Your task to perform on an android device: Open Google Chrome Image 0: 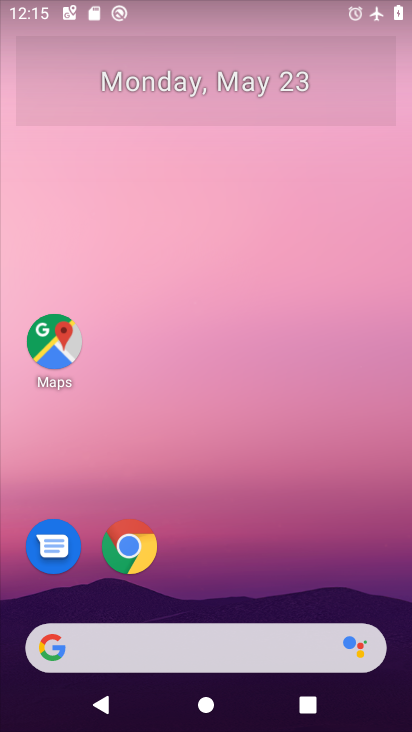
Step 0: drag from (217, 605) to (252, 71)
Your task to perform on an android device: Open Google Chrome Image 1: 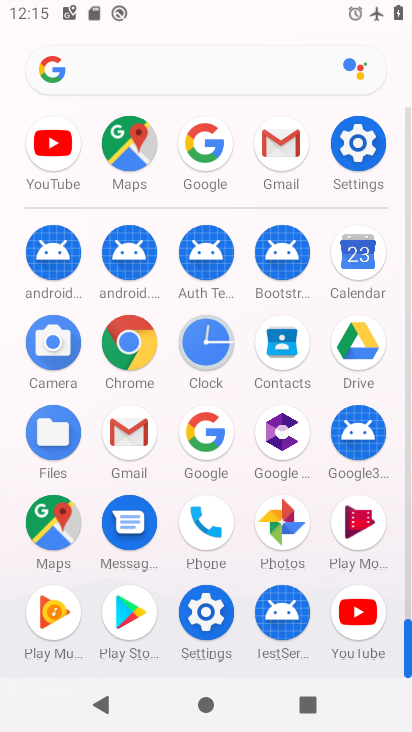
Step 1: click (215, 441)
Your task to perform on an android device: Open Google Chrome Image 2: 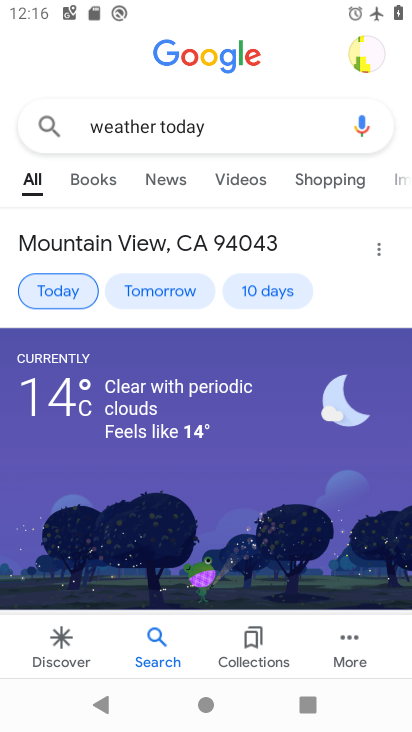
Step 2: task complete